Your task to perform on an android device: find which apps use the phone's location Image 0: 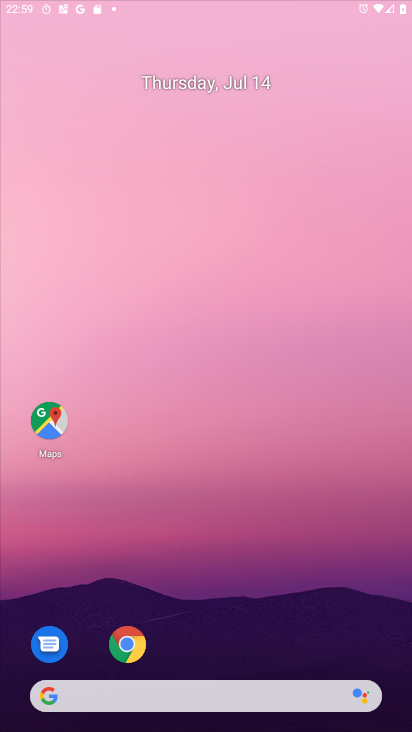
Step 0: click (235, 102)
Your task to perform on an android device: find which apps use the phone's location Image 1: 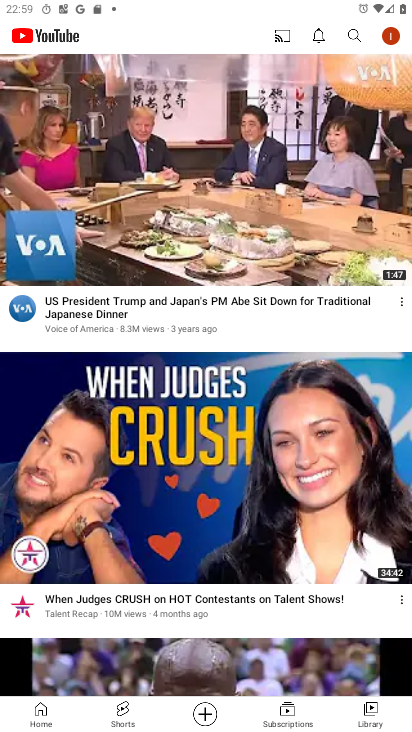
Step 1: press home button
Your task to perform on an android device: find which apps use the phone's location Image 2: 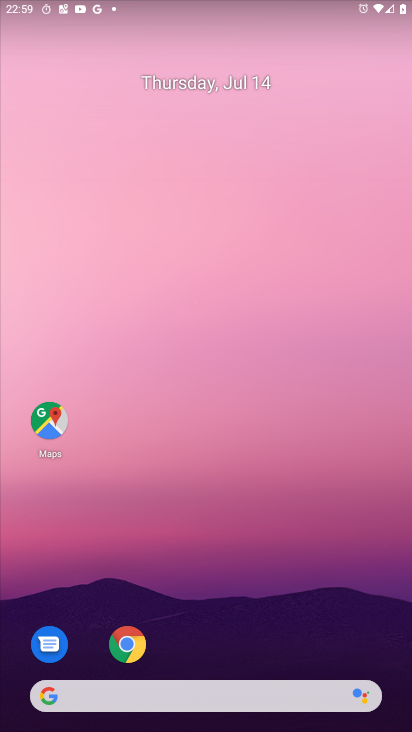
Step 2: drag from (170, 645) to (94, 90)
Your task to perform on an android device: find which apps use the phone's location Image 3: 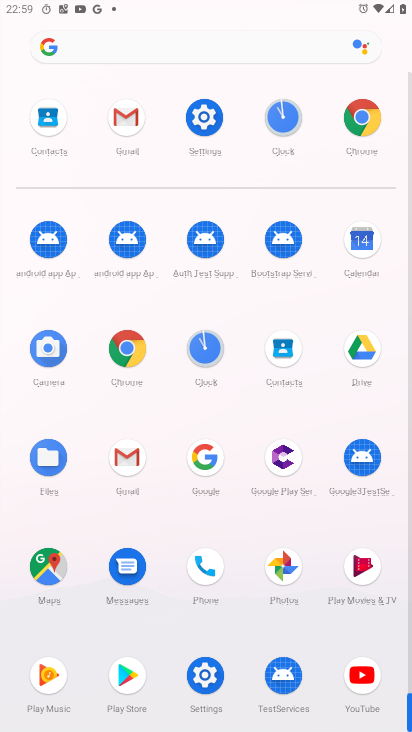
Step 3: click (210, 114)
Your task to perform on an android device: find which apps use the phone's location Image 4: 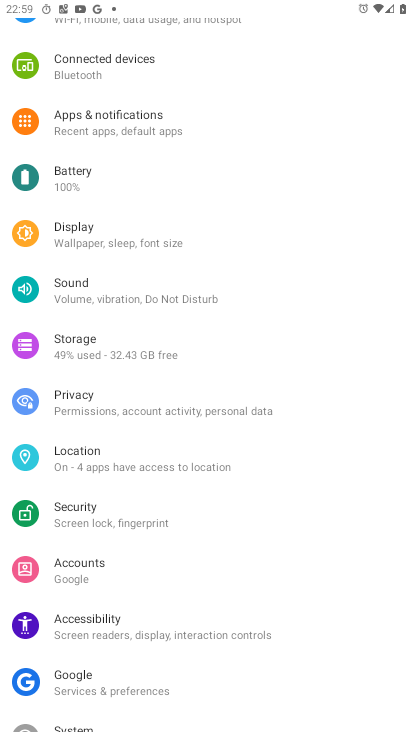
Step 4: click (103, 462)
Your task to perform on an android device: find which apps use the phone's location Image 5: 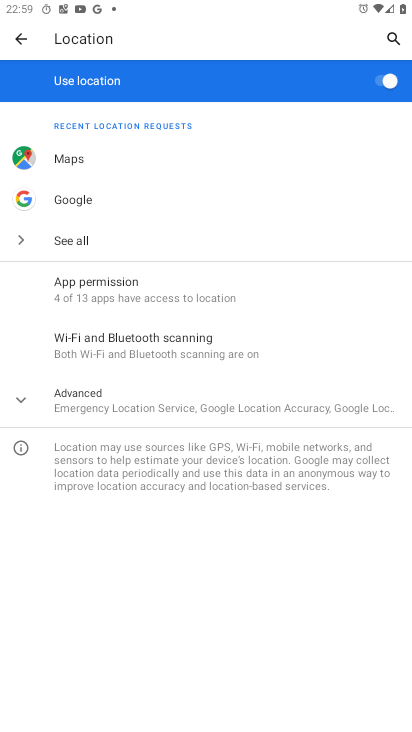
Step 5: click (184, 253)
Your task to perform on an android device: find which apps use the phone's location Image 6: 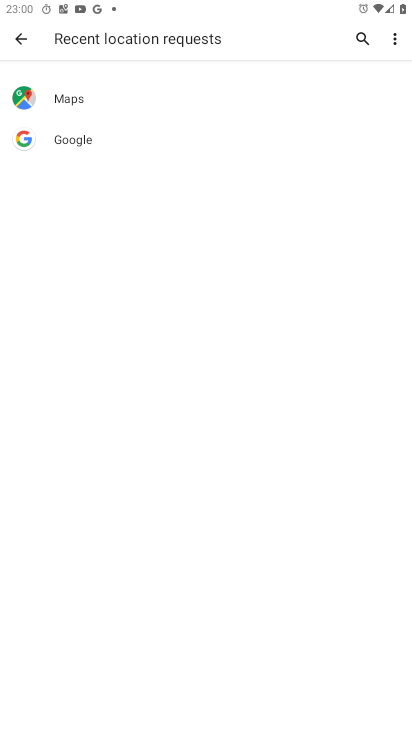
Step 6: task complete